Your task to perform on an android device: open app "Gboard" (install if not already installed) Image 0: 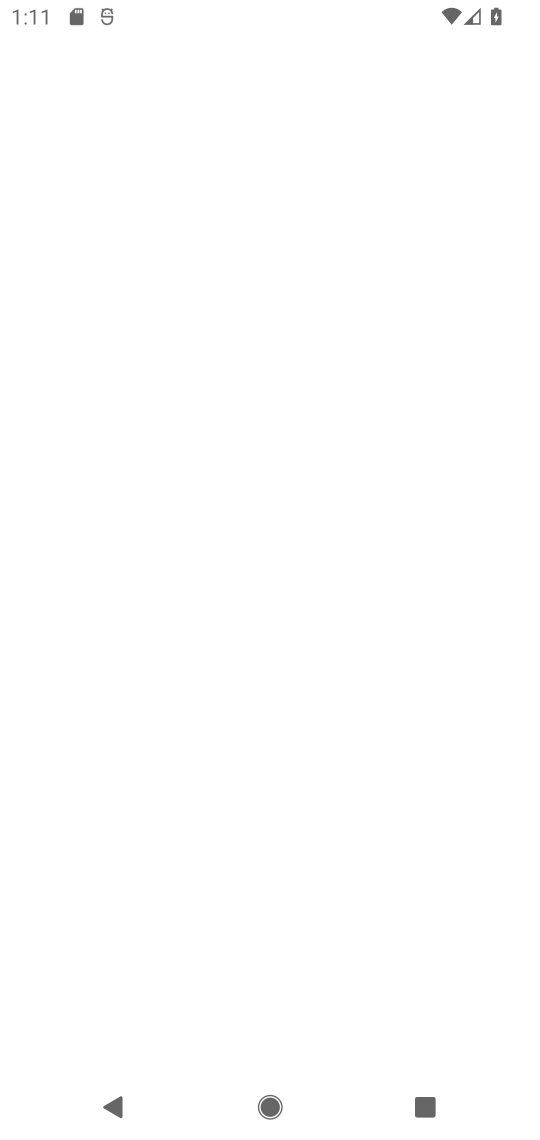
Step 0: click (454, 72)
Your task to perform on an android device: open app "Gboard" (install if not already installed) Image 1: 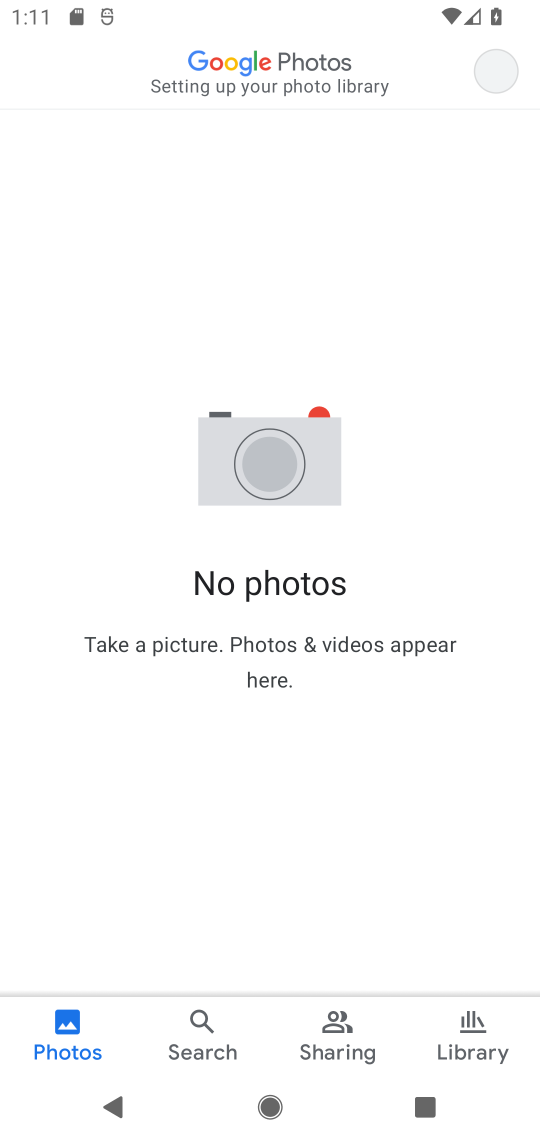
Step 1: press home button
Your task to perform on an android device: open app "Gboard" (install if not already installed) Image 2: 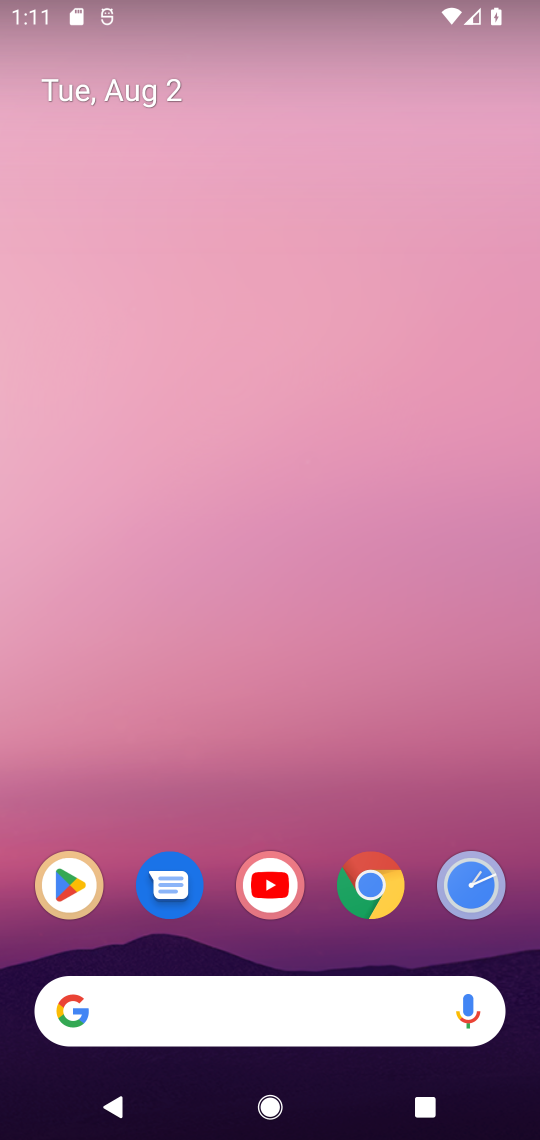
Step 2: click (55, 895)
Your task to perform on an android device: open app "Gboard" (install if not already installed) Image 3: 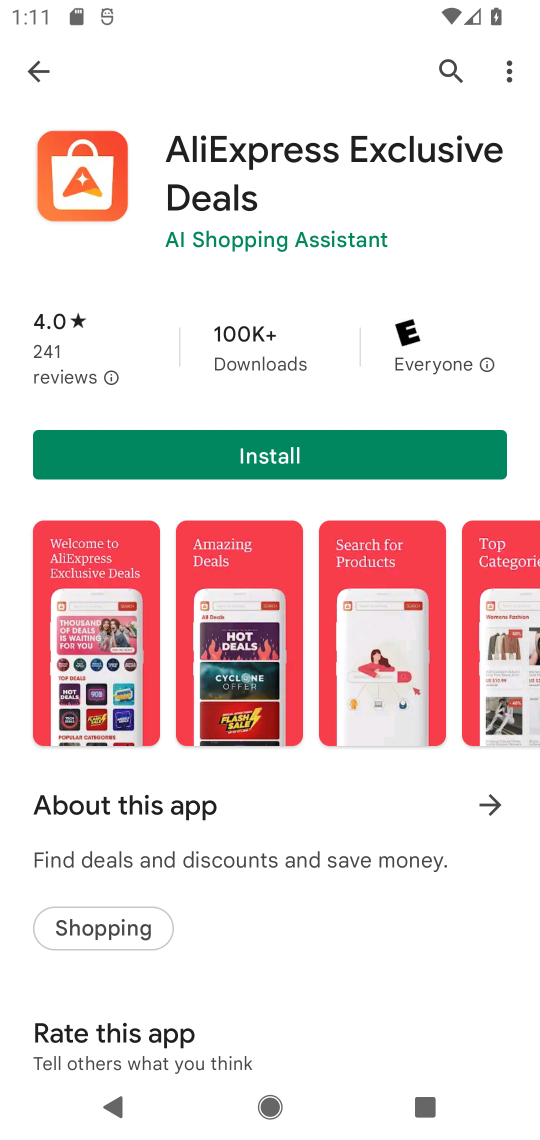
Step 3: click (438, 76)
Your task to perform on an android device: open app "Gboard" (install if not already installed) Image 4: 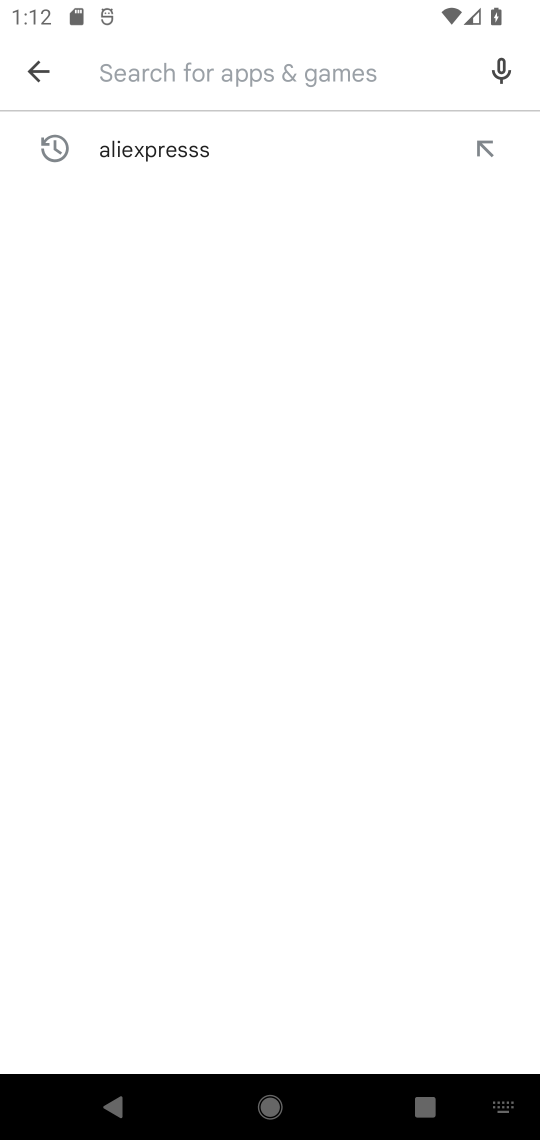
Step 4: type "gboard"
Your task to perform on an android device: open app "Gboard" (install if not already installed) Image 5: 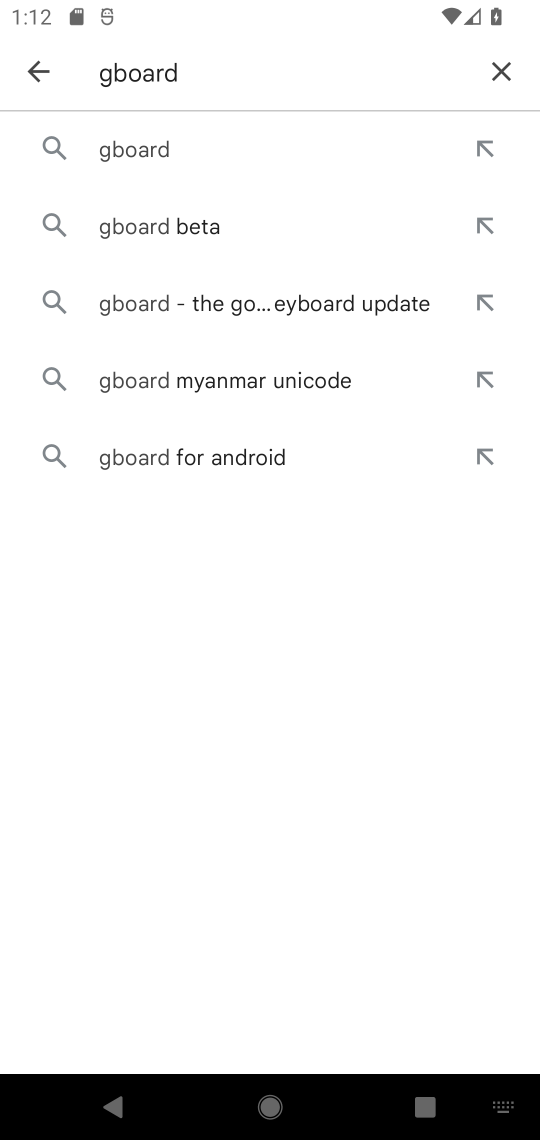
Step 5: click (369, 137)
Your task to perform on an android device: open app "Gboard" (install if not already installed) Image 6: 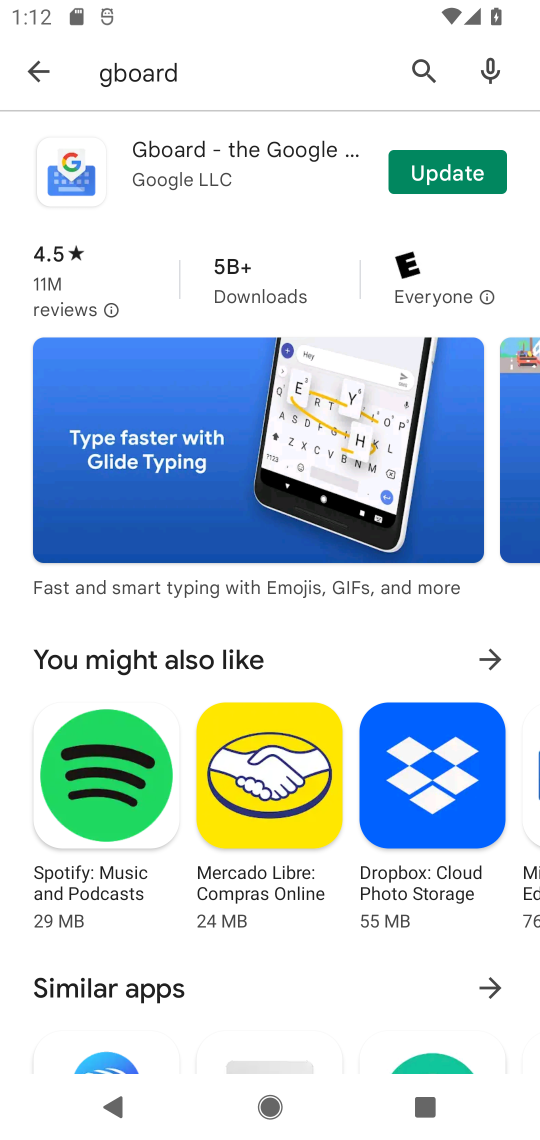
Step 6: click (215, 137)
Your task to perform on an android device: open app "Gboard" (install if not already installed) Image 7: 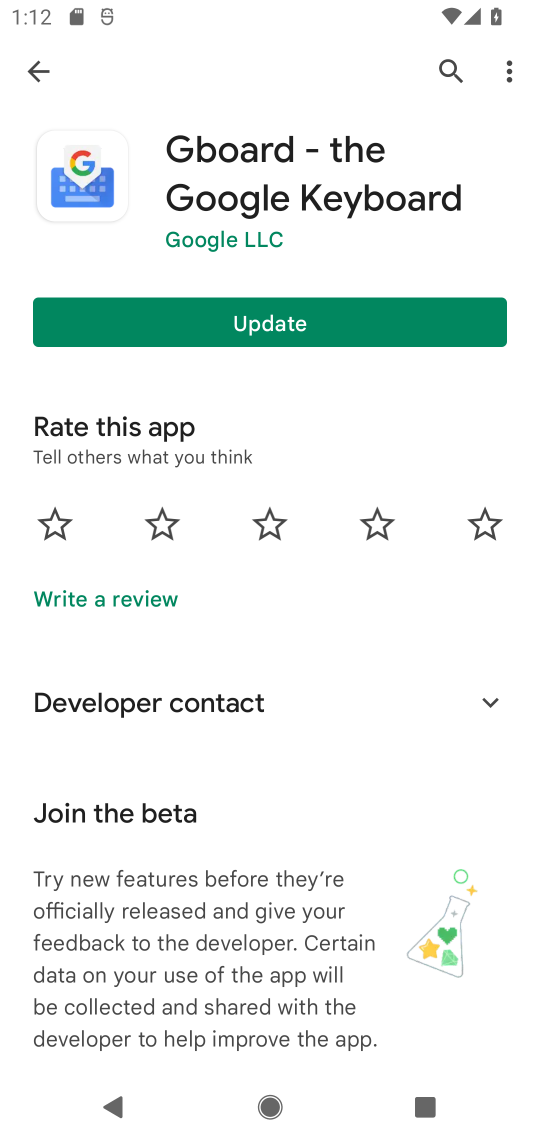
Step 7: task complete